Your task to perform on an android device: Set an alarm for 1pm Image 0: 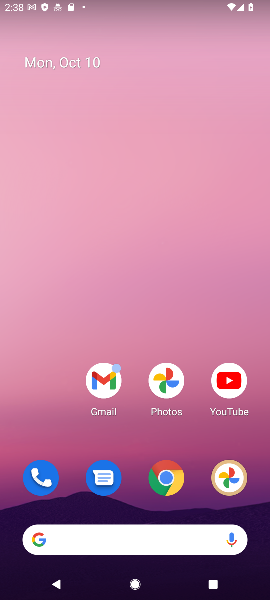
Step 0: drag from (134, 502) to (164, 120)
Your task to perform on an android device: Set an alarm for 1pm Image 1: 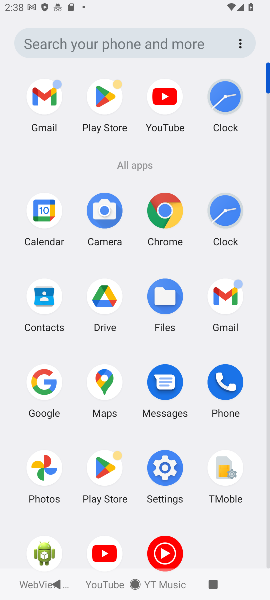
Step 1: click (232, 93)
Your task to perform on an android device: Set an alarm for 1pm Image 2: 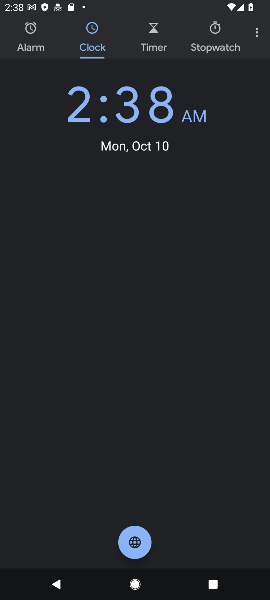
Step 2: click (24, 41)
Your task to perform on an android device: Set an alarm for 1pm Image 3: 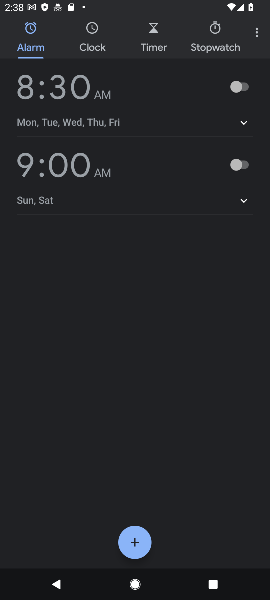
Step 3: click (129, 532)
Your task to perform on an android device: Set an alarm for 1pm Image 4: 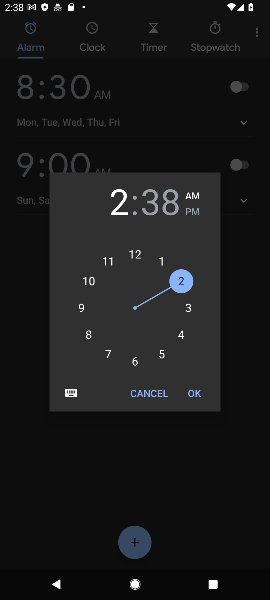
Step 4: click (164, 267)
Your task to perform on an android device: Set an alarm for 1pm Image 5: 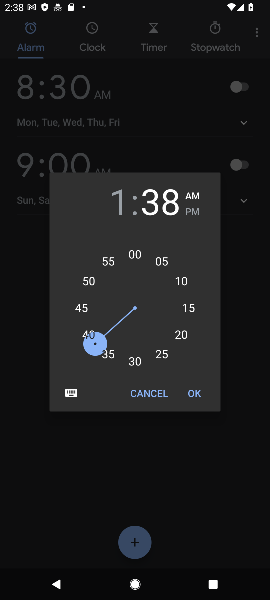
Step 5: click (137, 253)
Your task to perform on an android device: Set an alarm for 1pm Image 6: 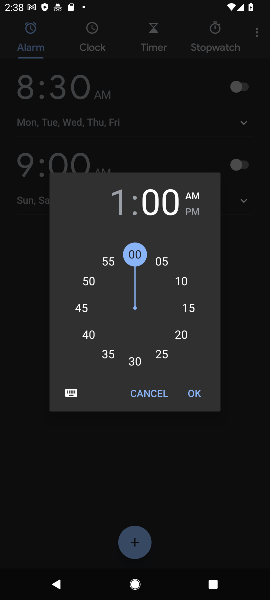
Step 6: click (197, 212)
Your task to perform on an android device: Set an alarm for 1pm Image 7: 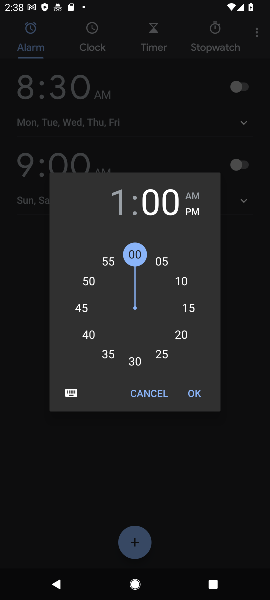
Step 7: click (198, 394)
Your task to perform on an android device: Set an alarm for 1pm Image 8: 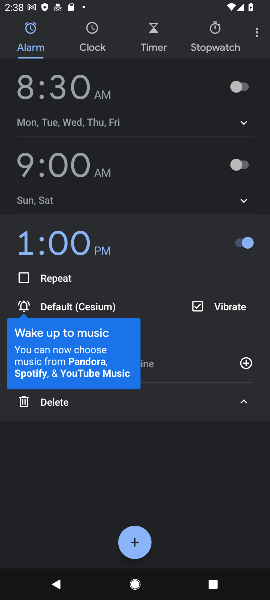
Step 8: task complete